Your task to perform on an android device: Open Youtube and go to the subscriptions tab Image 0: 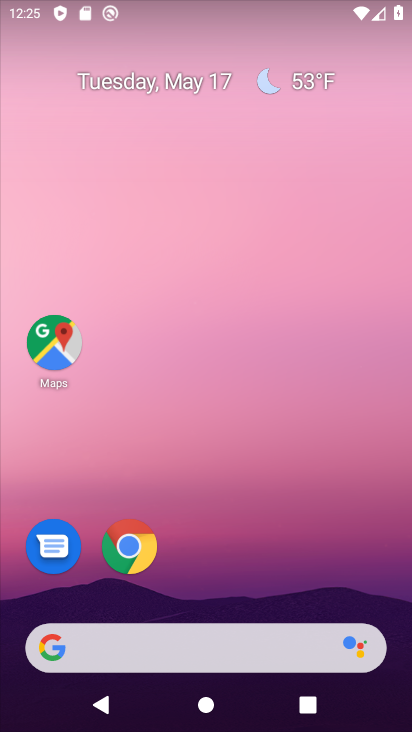
Step 0: drag from (231, 583) to (251, 219)
Your task to perform on an android device: Open Youtube and go to the subscriptions tab Image 1: 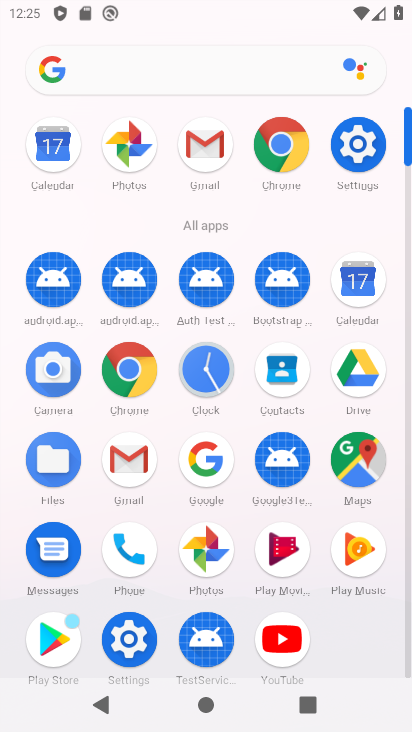
Step 1: click (280, 644)
Your task to perform on an android device: Open Youtube and go to the subscriptions tab Image 2: 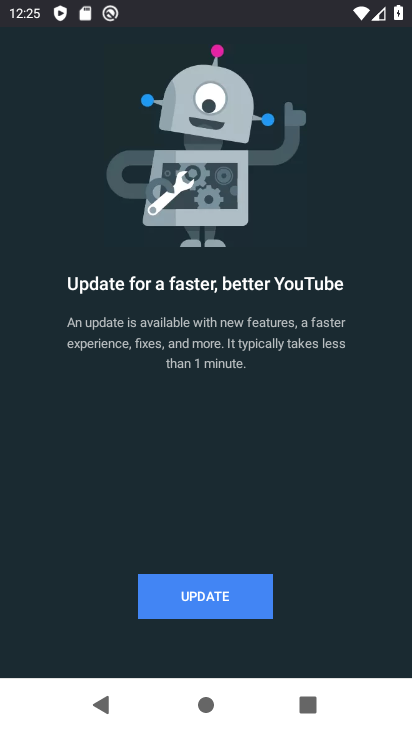
Step 2: click (202, 605)
Your task to perform on an android device: Open Youtube and go to the subscriptions tab Image 3: 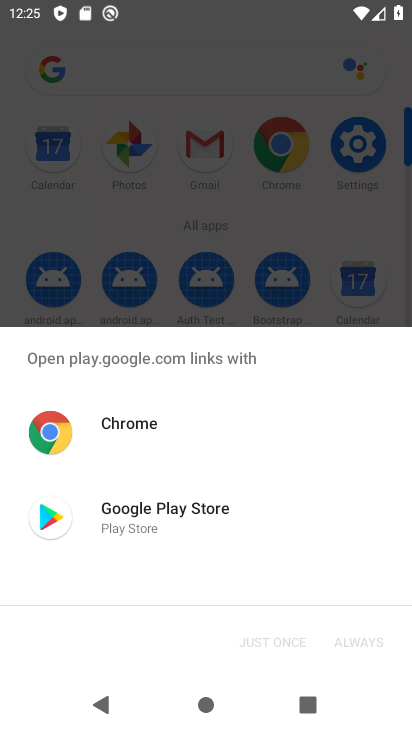
Step 3: drag from (159, 513) to (209, 513)
Your task to perform on an android device: Open Youtube and go to the subscriptions tab Image 4: 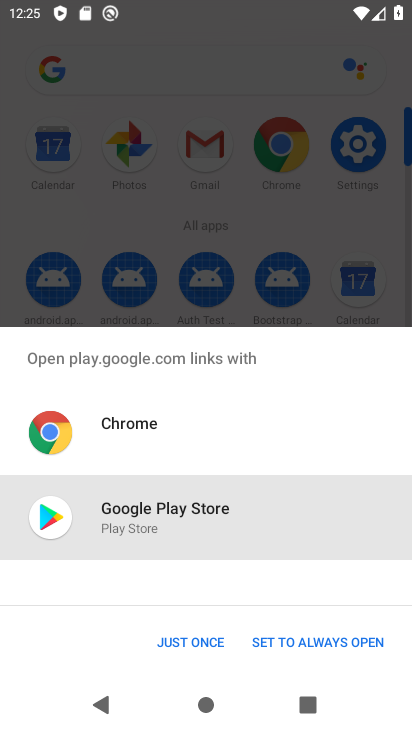
Step 4: click (181, 640)
Your task to perform on an android device: Open Youtube and go to the subscriptions tab Image 5: 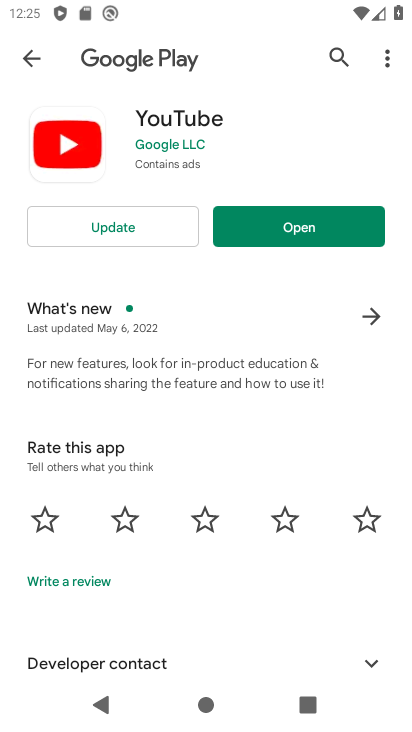
Step 5: click (157, 232)
Your task to perform on an android device: Open Youtube and go to the subscriptions tab Image 6: 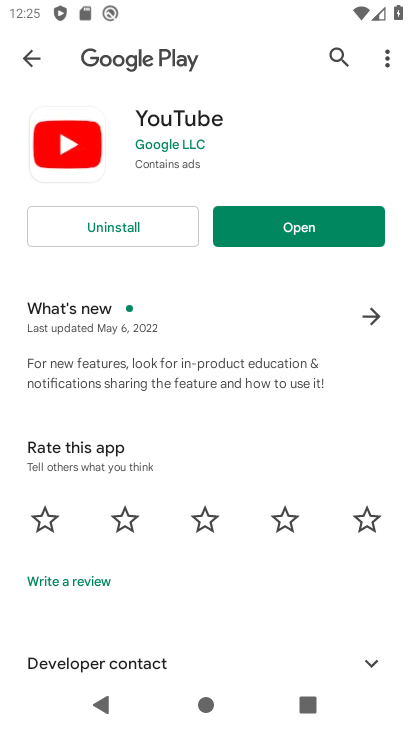
Step 6: click (255, 235)
Your task to perform on an android device: Open Youtube and go to the subscriptions tab Image 7: 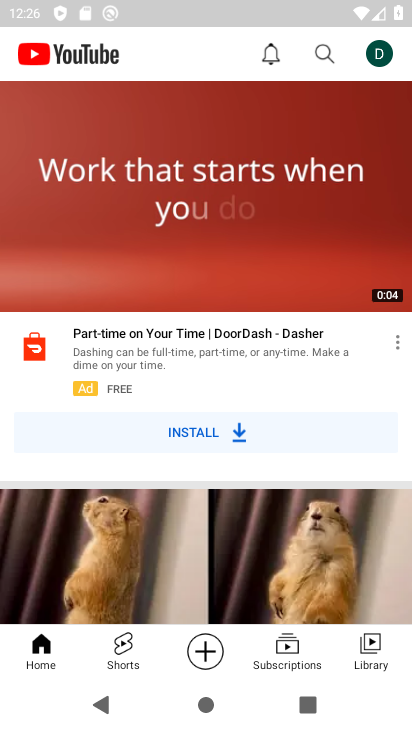
Step 7: click (288, 644)
Your task to perform on an android device: Open Youtube and go to the subscriptions tab Image 8: 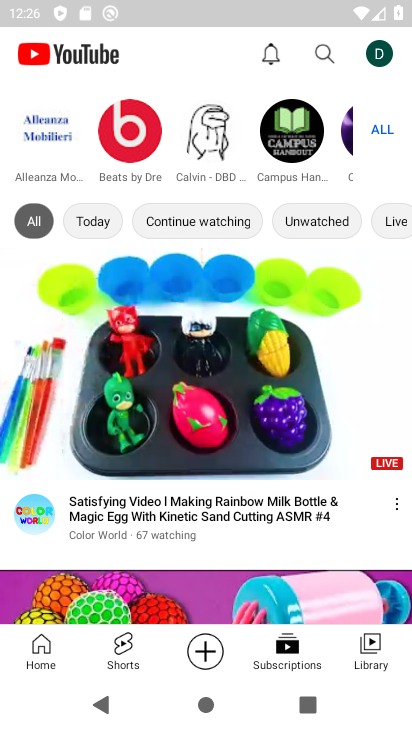
Step 8: task complete